Your task to perform on an android device: change notification settings in the gmail app Image 0: 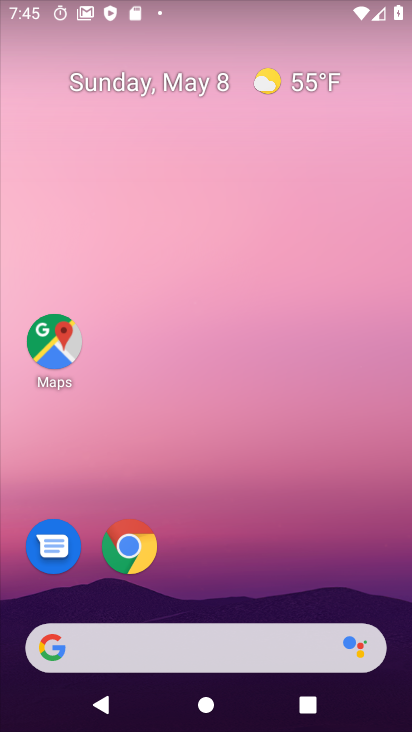
Step 0: drag from (298, 516) to (294, 214)
Your task to perform on an android device: change notification settings in the gmail app Image 1: 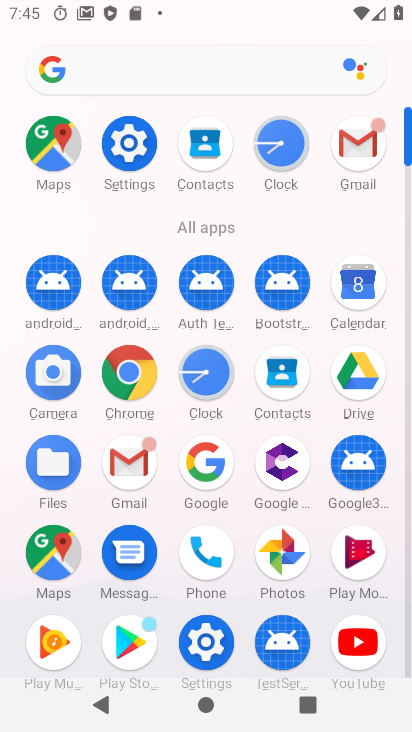
Step 1: click (366, 140)
Your task to perform on an android device: change notification settings in the gmail app Image 2: 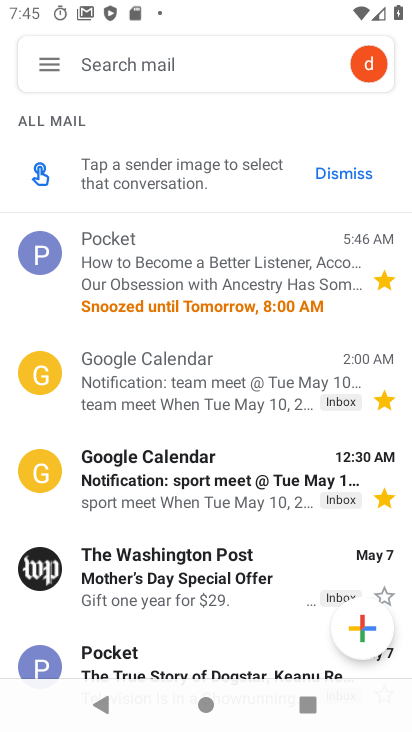
Step 2: click (54, 62)
Your task to perform on an android device: change notification settings in the gmail app Image 3: 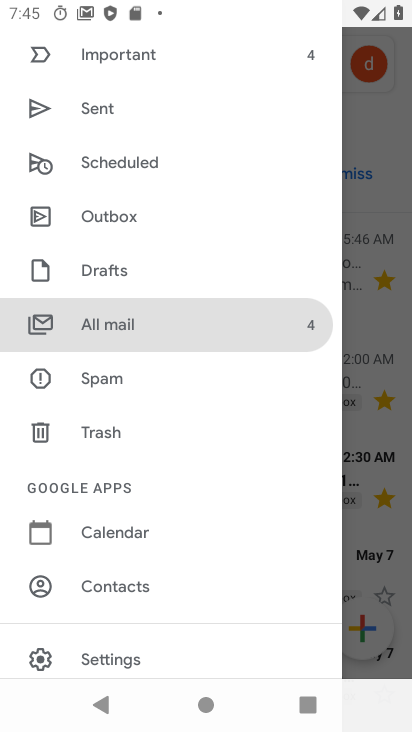
Step 3: click (120, 653)
Your task to perform on an android device: change notification settings in the gmail app Image 4: 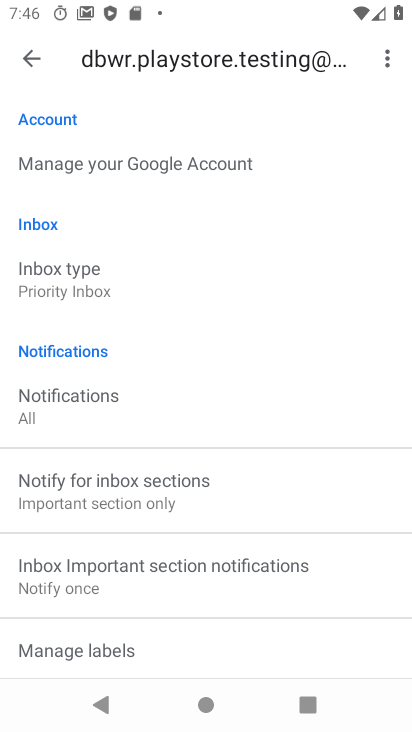
Step 4: drag from (143, 460) to (180, 250)
Your task to perform on an android device: change notification settings in the gmail app Image 5: 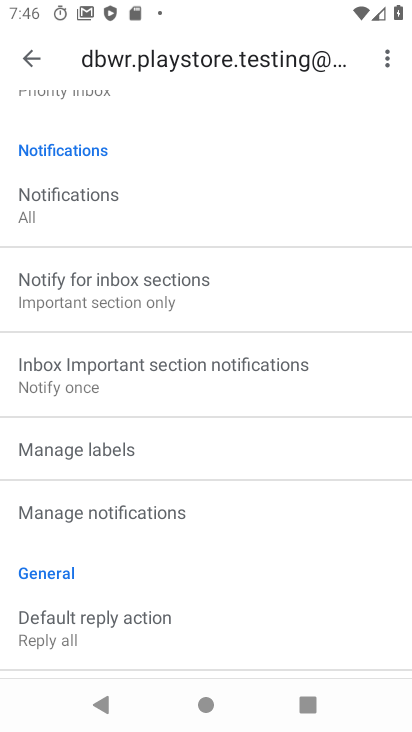
Step 5: click (148, 510)
Your task to perform on an android device: change notification settings in the gmail app Image 6: 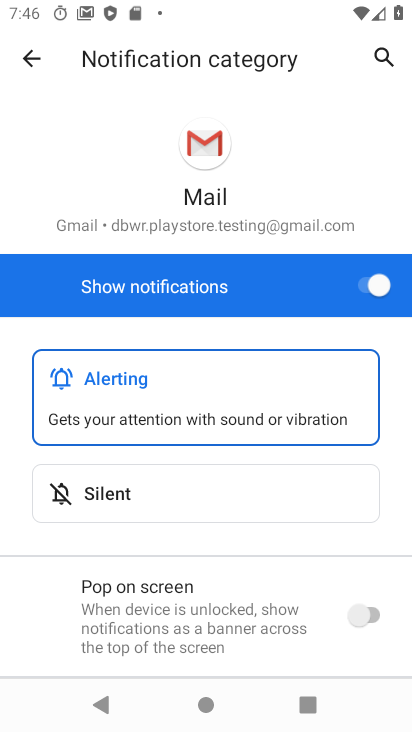
Step 6: click (364, 286)
Your task to perform on an android device: change notification settings in the gmail app Image 7: 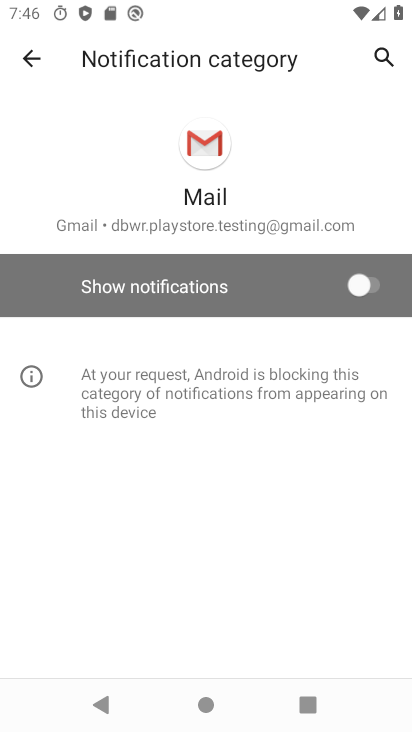
Step 7: task complete